Your task to perform on an android device: refresh tabs in the chrome app Image 0: 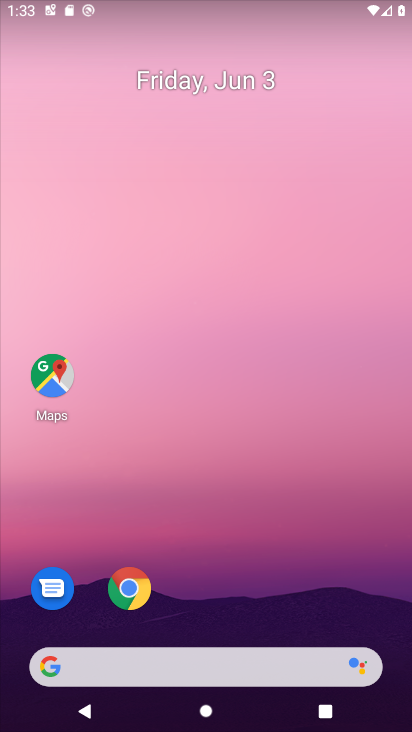
Step 0: drag from (152, 584) to (236, 1)
Your task to perform on an android device: refresh tabs in the chrome app Image 1: 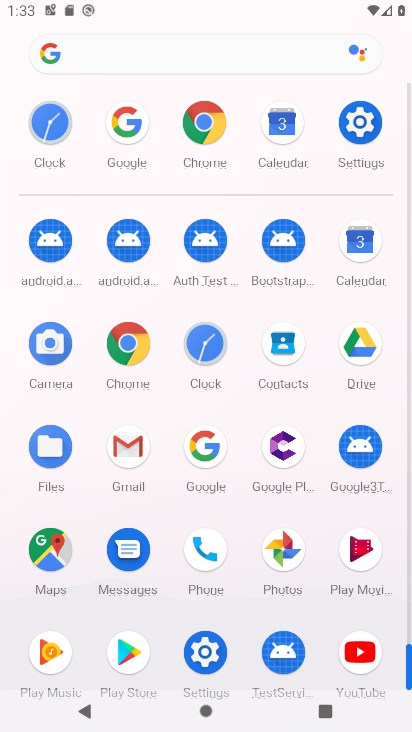
Step 1: click (213, 130)
Your task to perform on an android device: refresh tabs in the chrome app Image 2: 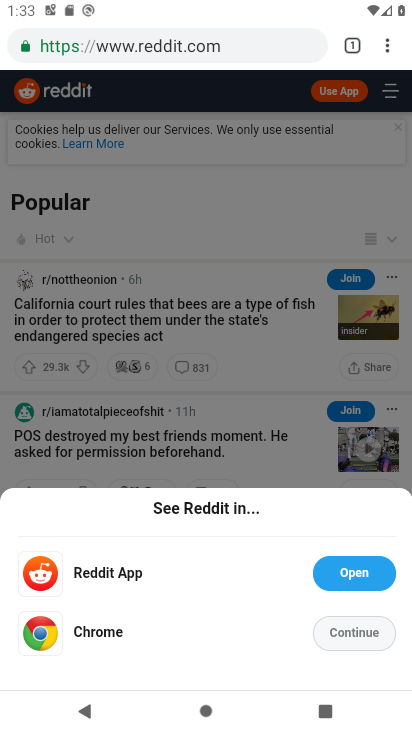
Step 2: click (392, 48)
Your task to perform on an android device: refresh tabs in the chrome app Image 3: 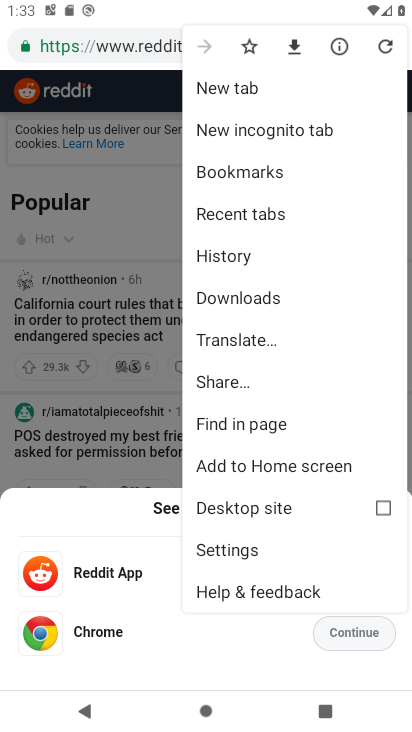
Step 3: click (388, 54)
Your task to perform on an android device: refresh tabs in the chrome app Image 4: 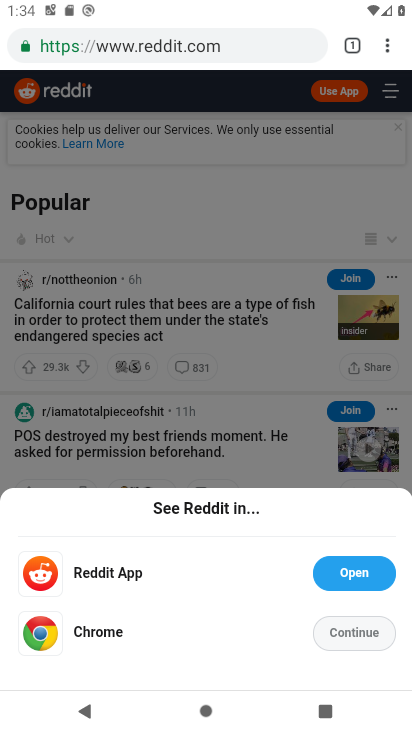
Step 4: task complete